Your task to perform on an android device: Search for Italian restaurants on Maps Image 0: 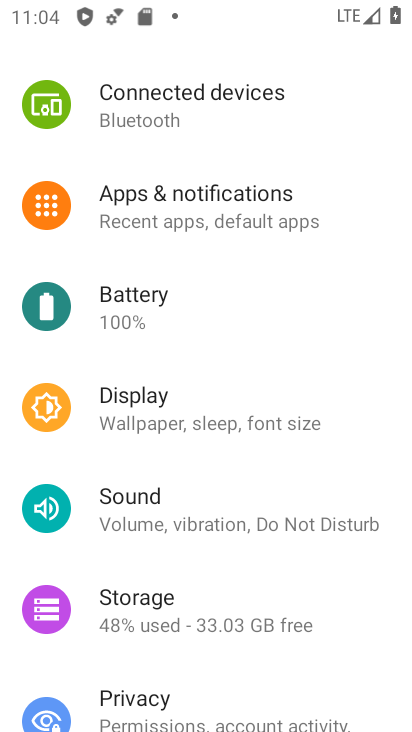
Step 0: press home button
Your task to perform on an android device: Search for Italian restaurants on Maps Image 1: 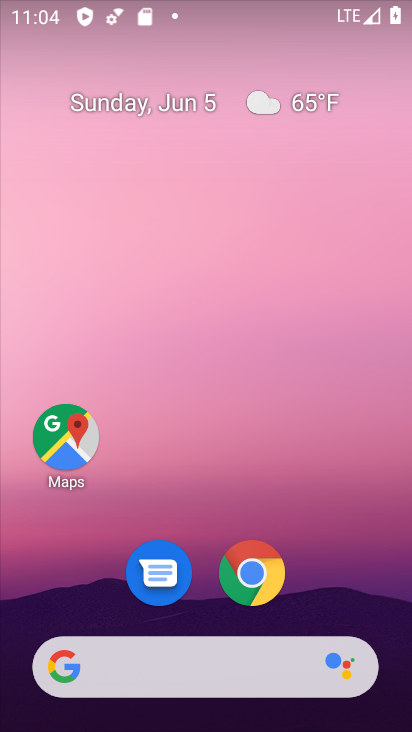
Step 1: drag from (218, 611) to (226, 207)
Your task to perform on an android device: Search for Italian restaurants on Maps Image 2: 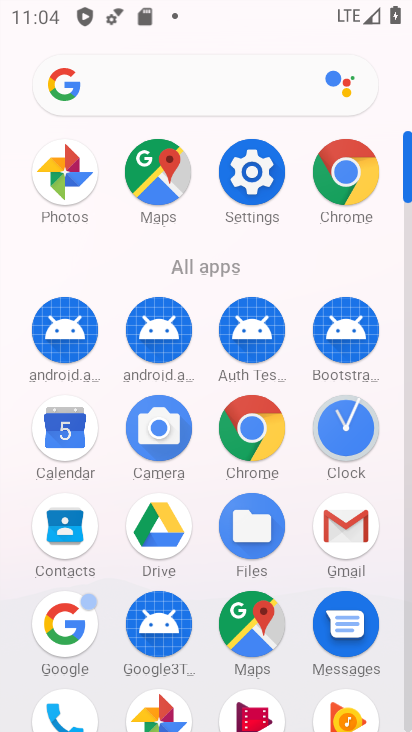
Step 2: click (262, 637)
Your task to perform on an android device: Search for Italian restaurants on Maps Image 3: 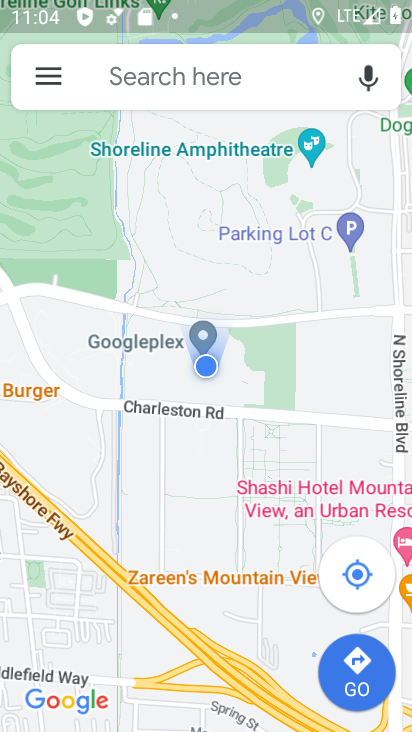
Step 3: click (210, 97)
Your task to perform on an android device: Search for Italian restaurants on Maps Image 4: 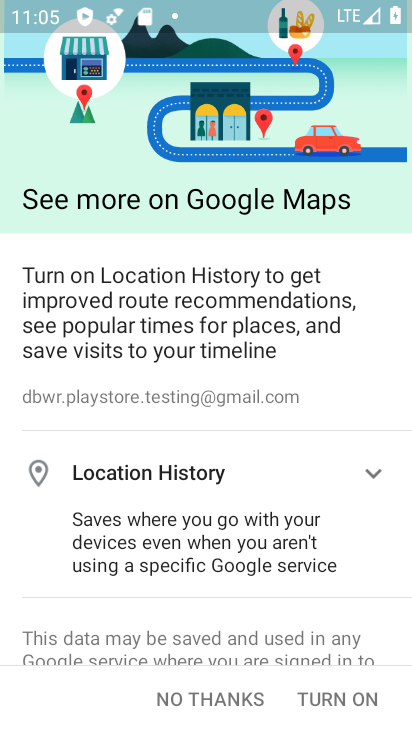
Step 4: click (224, 706)
Your task to perform on an android device: Search for Italian restaurants on Maps Image 5: 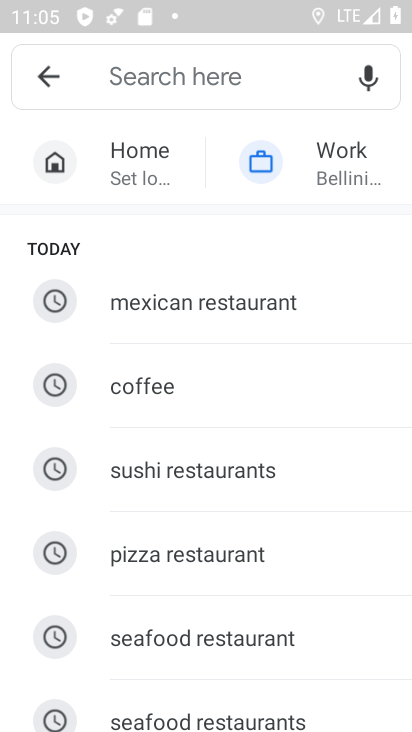
Step 5: drag from (175, 558) to (211, 233)
Your task to perform on an android device: Search for Italian restaurants on Maps Image 6: 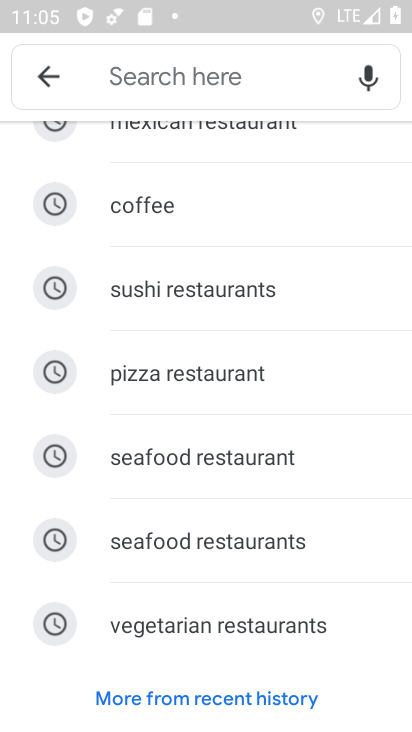
Step 6: click (182, 91)
Your task to perform on an android device: Search for Italian restaurants on Maps Image 7: 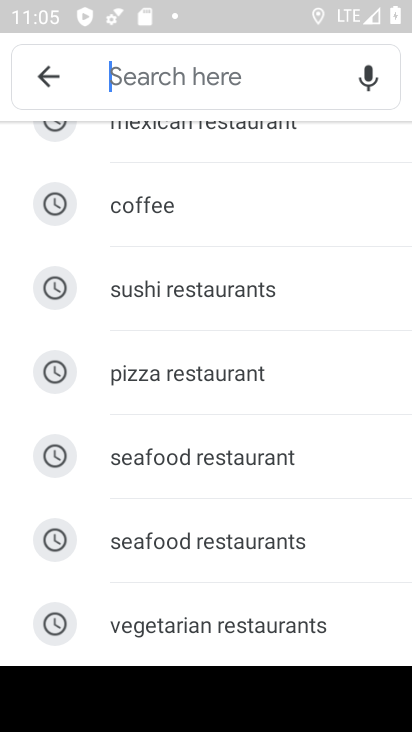
Step 7: type "Italian restaurants"
Your task to perform on an android device: Search for Italian restaurants on Maps Image 8: 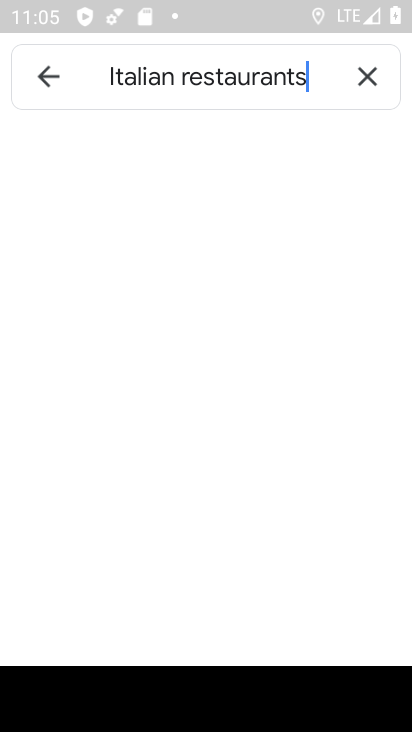
Step 8: type ""
Your task to perform on an android device: Search for Italian restaurants on Maps Image 9: 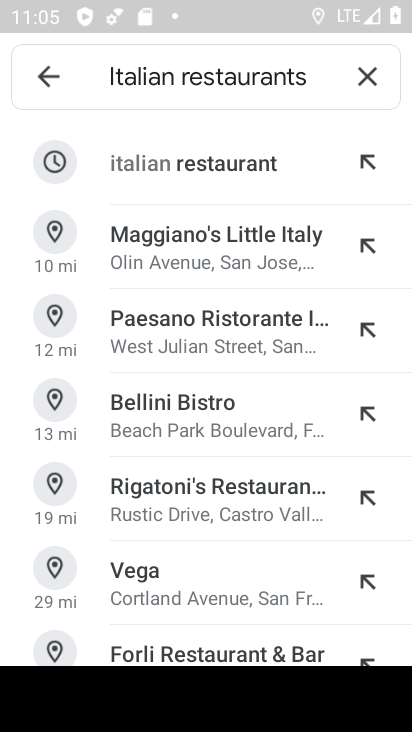
Step 9: click (238, 172)
Your task to perform on an android device: Search for Italian restaurants on Maps Image 10: 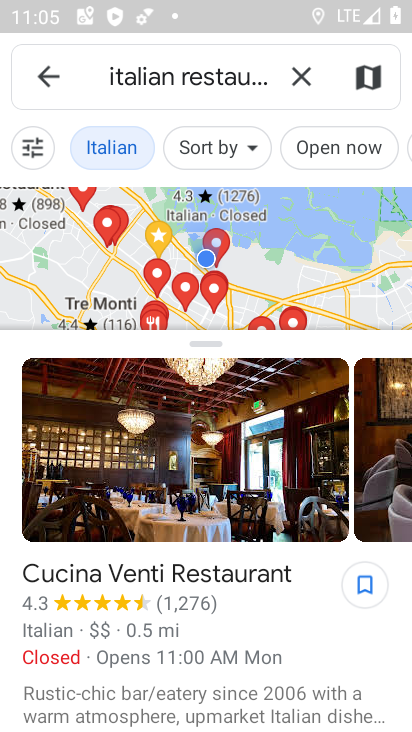
Step 10: task complete